Your task to perform on an android device: check android version Image 0: 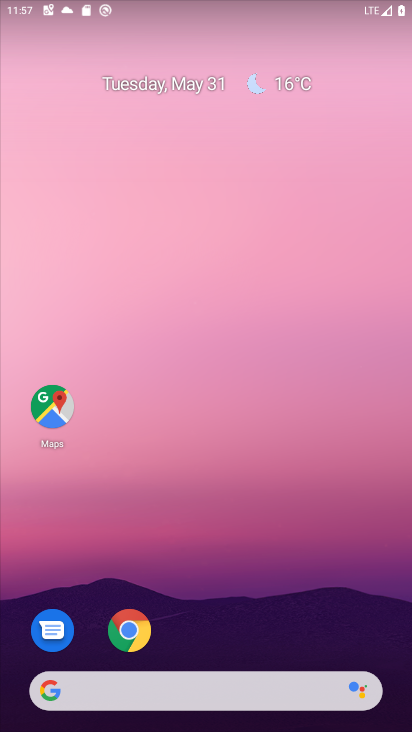
Step 0: drag from (319, 619) to (247, 70)
Your task to perform on an android device: check android version Image 1: 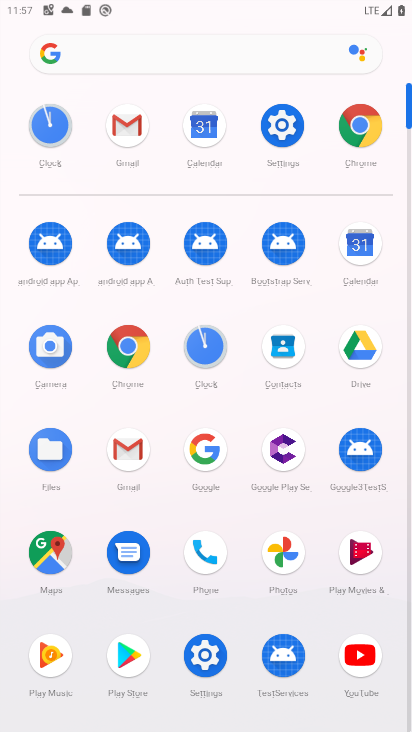
Step 1: click (283, 113)
Your task to perform on an android device: check android version Image 2: 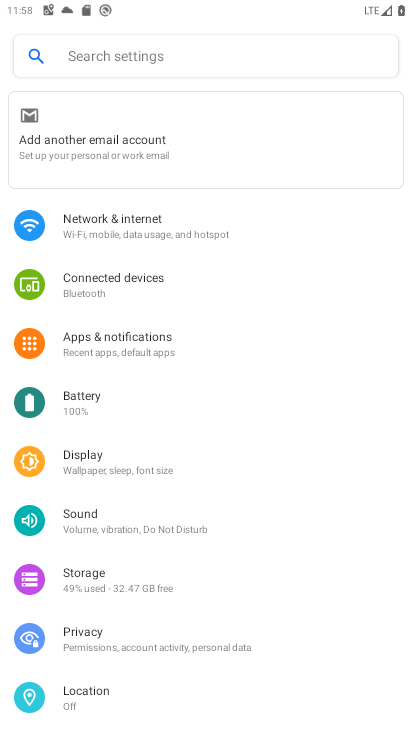
Step 2: drag from (117, 604) to (237, 11)
Your task to perform on an android device: check android version Image 3: 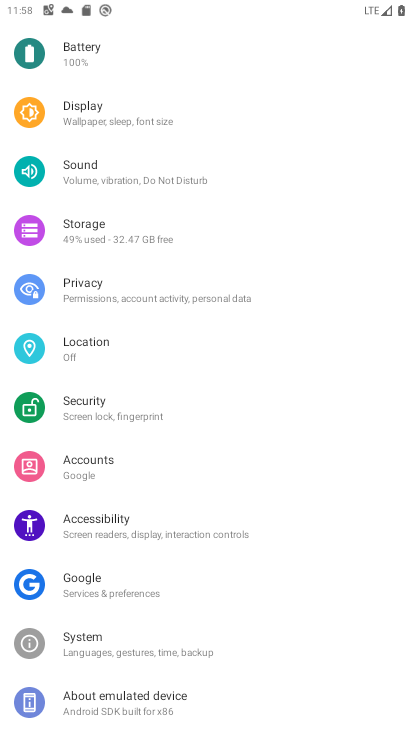
Step 3: click (152, 699)
Your task to perform on an android device: check android version Image 4: 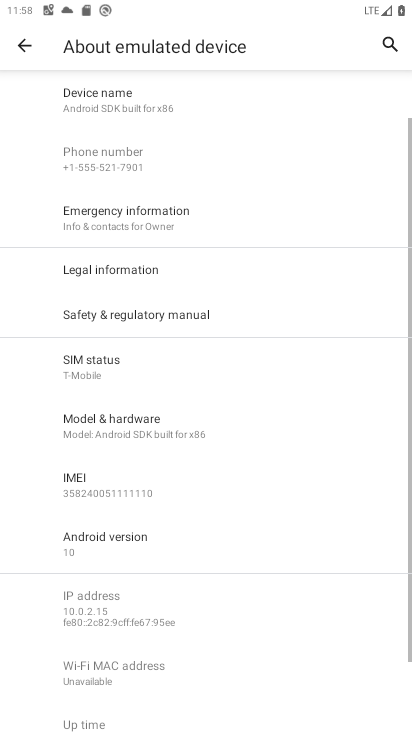
Step 4: drag from (129, 692) to (223, 177)
Your task to perform on an android device: check android version Image 5: 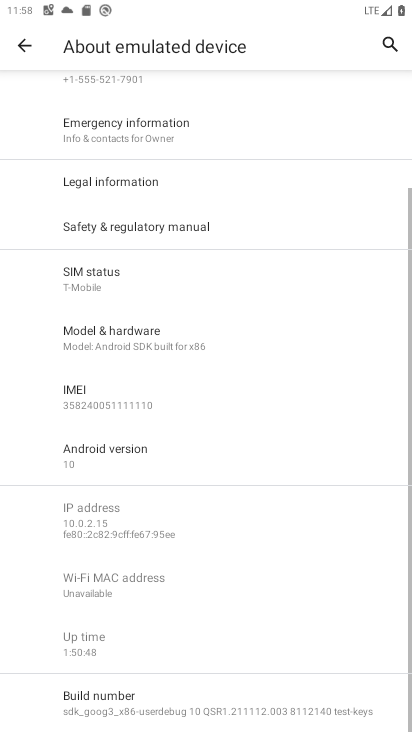
Step 5: click (111, 452)
Your task to perform on an android device: check android version Image 6: 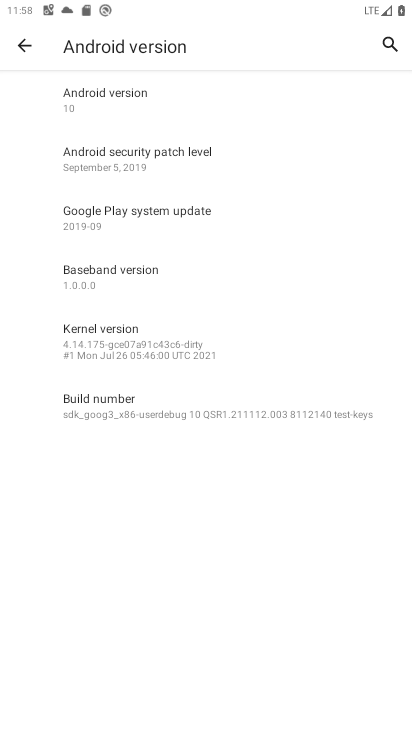
Step 6: task complete